Your task to perform on an android device: check android version Image 0: 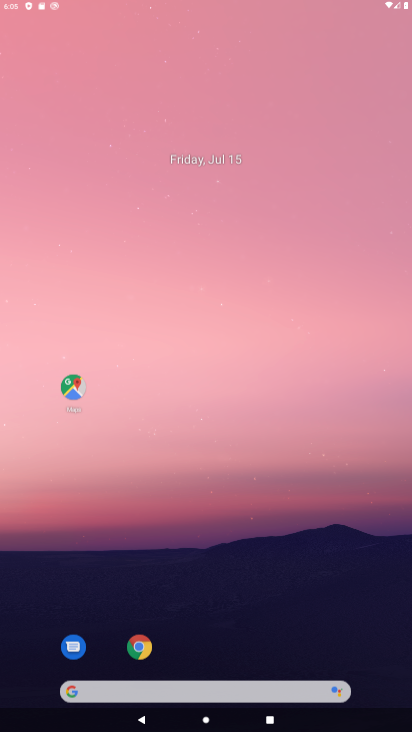
Step 0: press home button
Your task to perform on an android device: check android version Image 1: 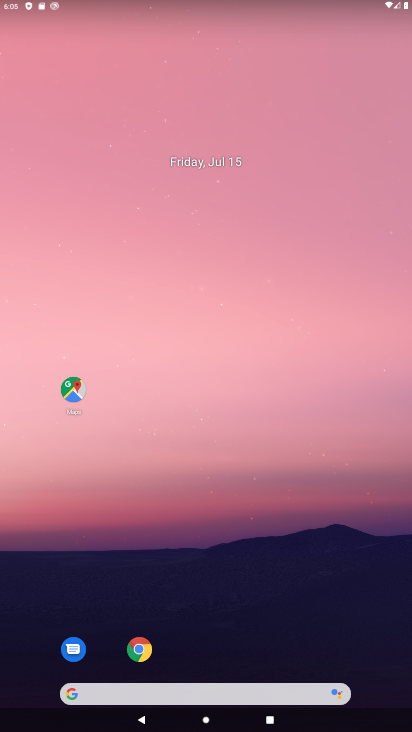
Step 1: drag from (223, 662) to (220, 141)
Your task to perform on an android device: check android version Image 2: 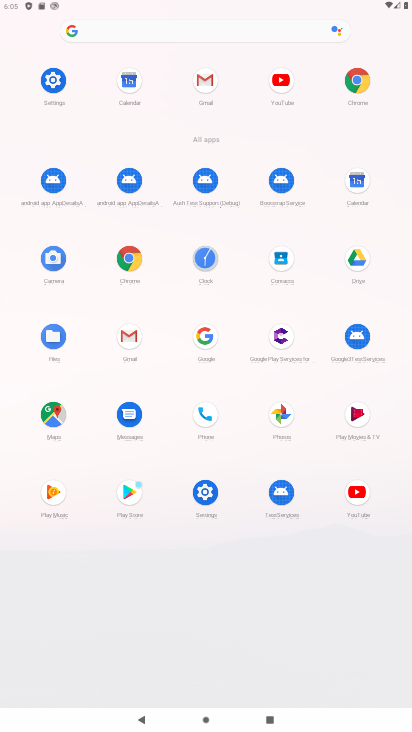
Step 2: click (48, 85)
Your task to perform on an android device: check android version Image 3: 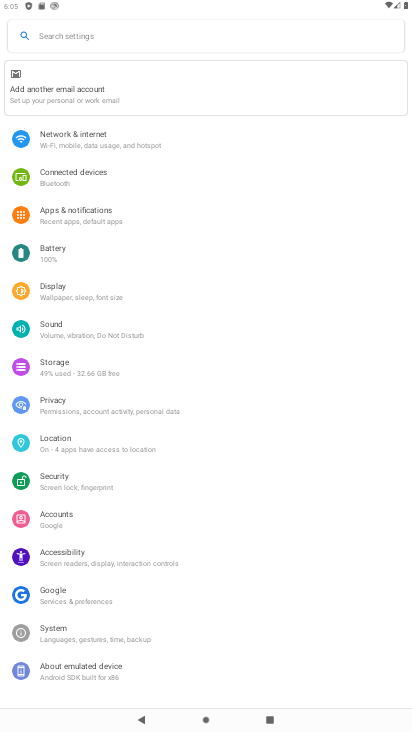
Step 3: click (75, 672)
Your task to perform on an android device: check android version Image 4: 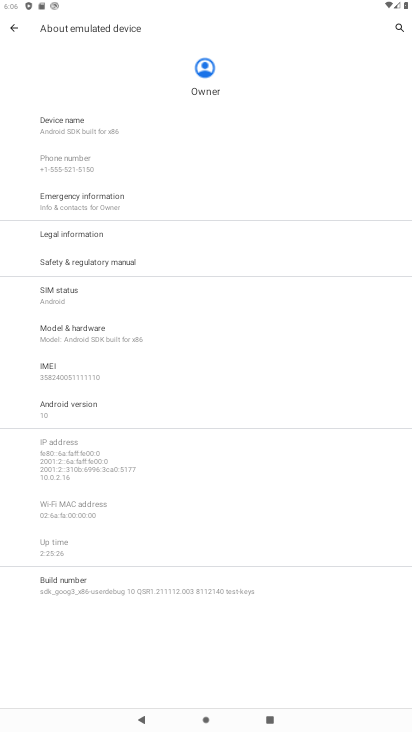
Step 4: task complete